Your task to perform on an android device: uninstall "Truecaller" Image 0: 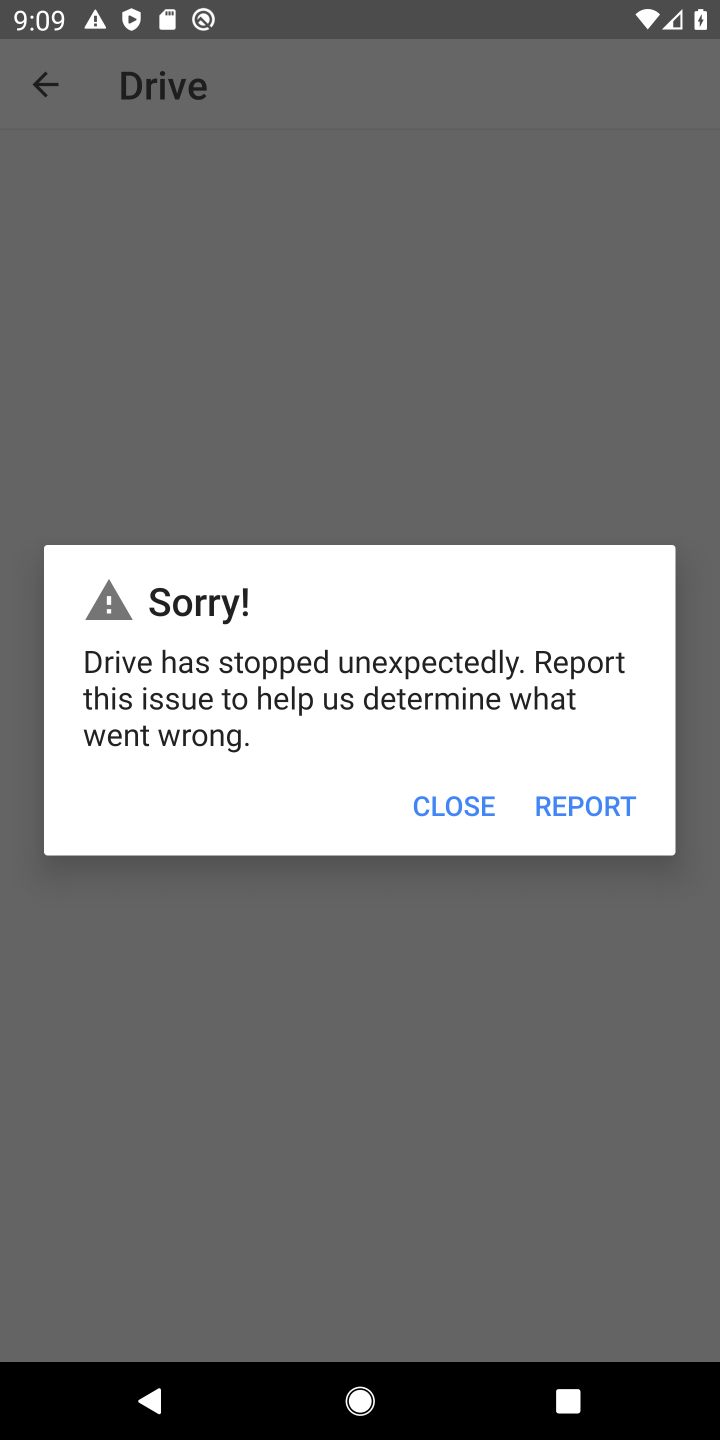
Step 0: press home button
Your task to perform on an android device: uninstall "Truecaller" Image 1: 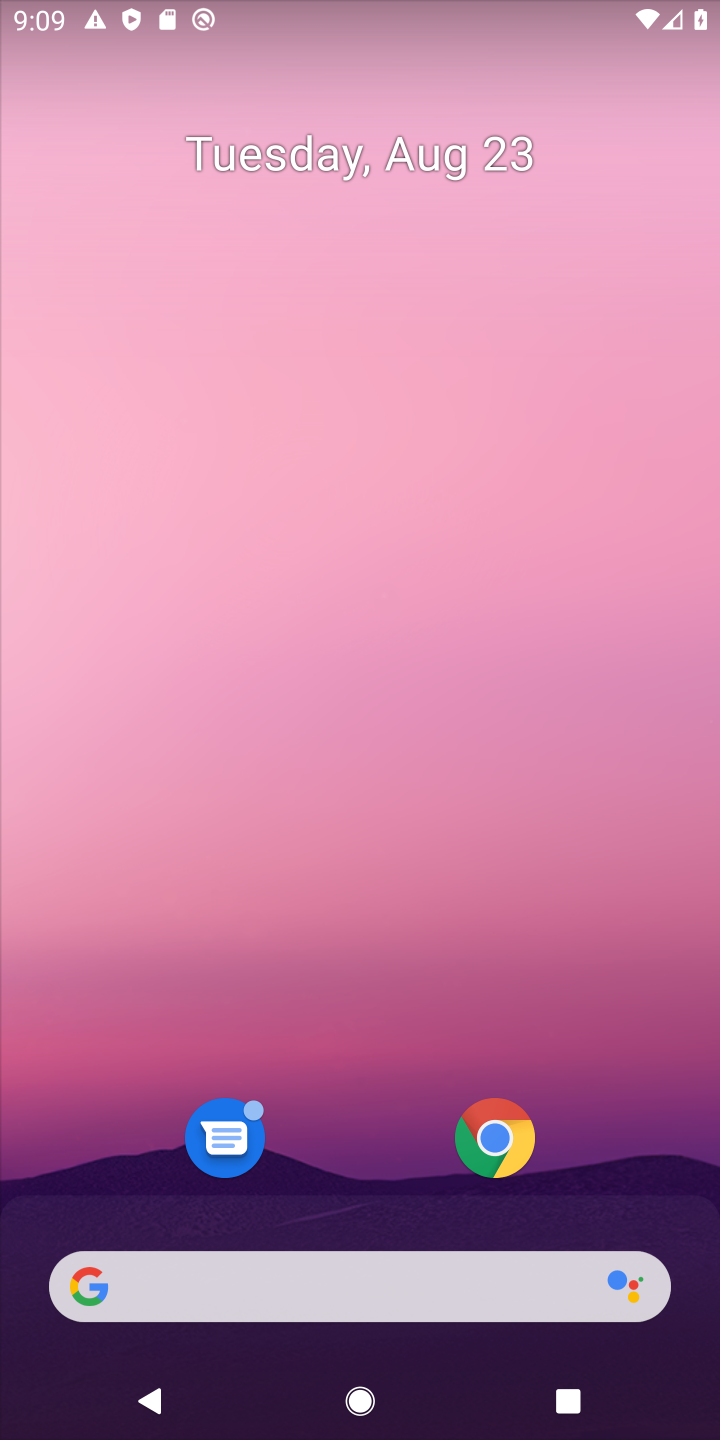
Step 1: drag from (390, 1277) to (636, 72)
Your task to perform on an android device: uninstall "Truecaller" Image 2: 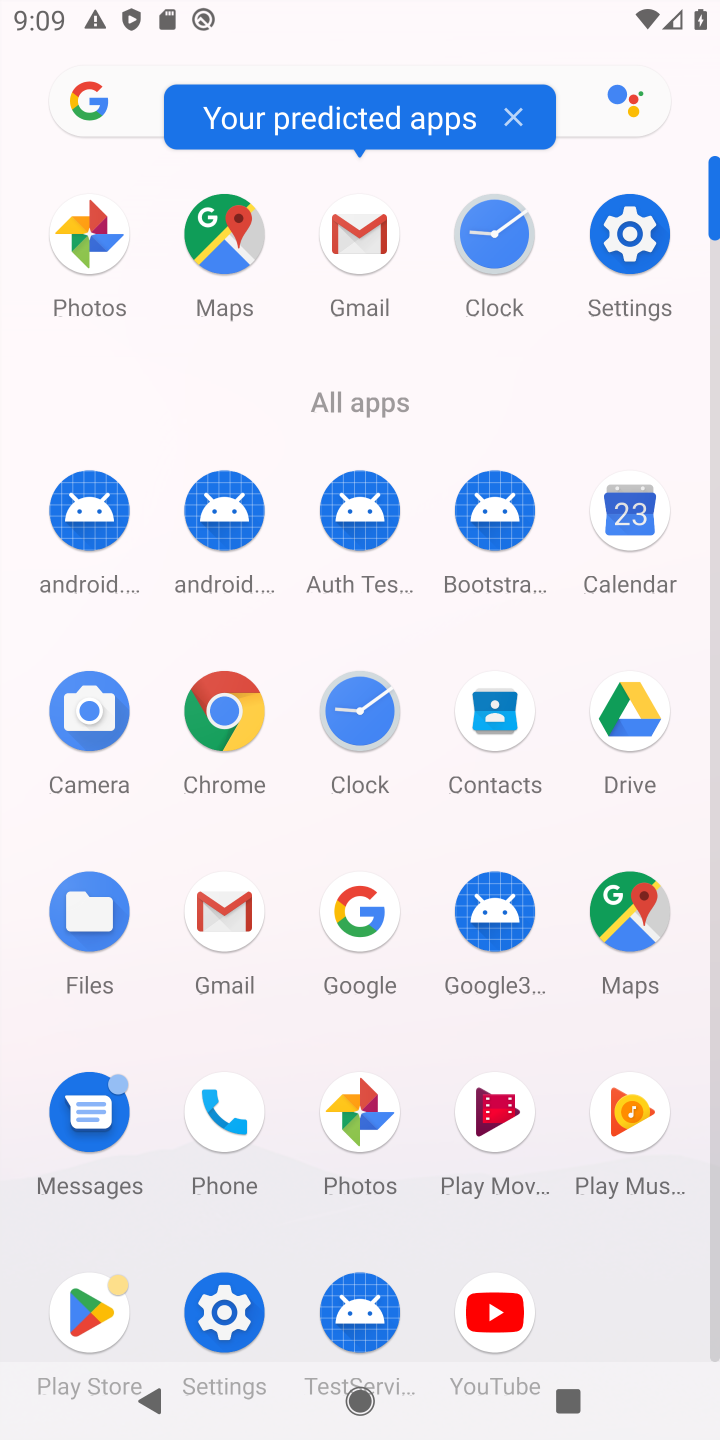
Step 2: click (91, 1321)
Your task to perform on an android device: uninstall "Truecaller" Image 3: 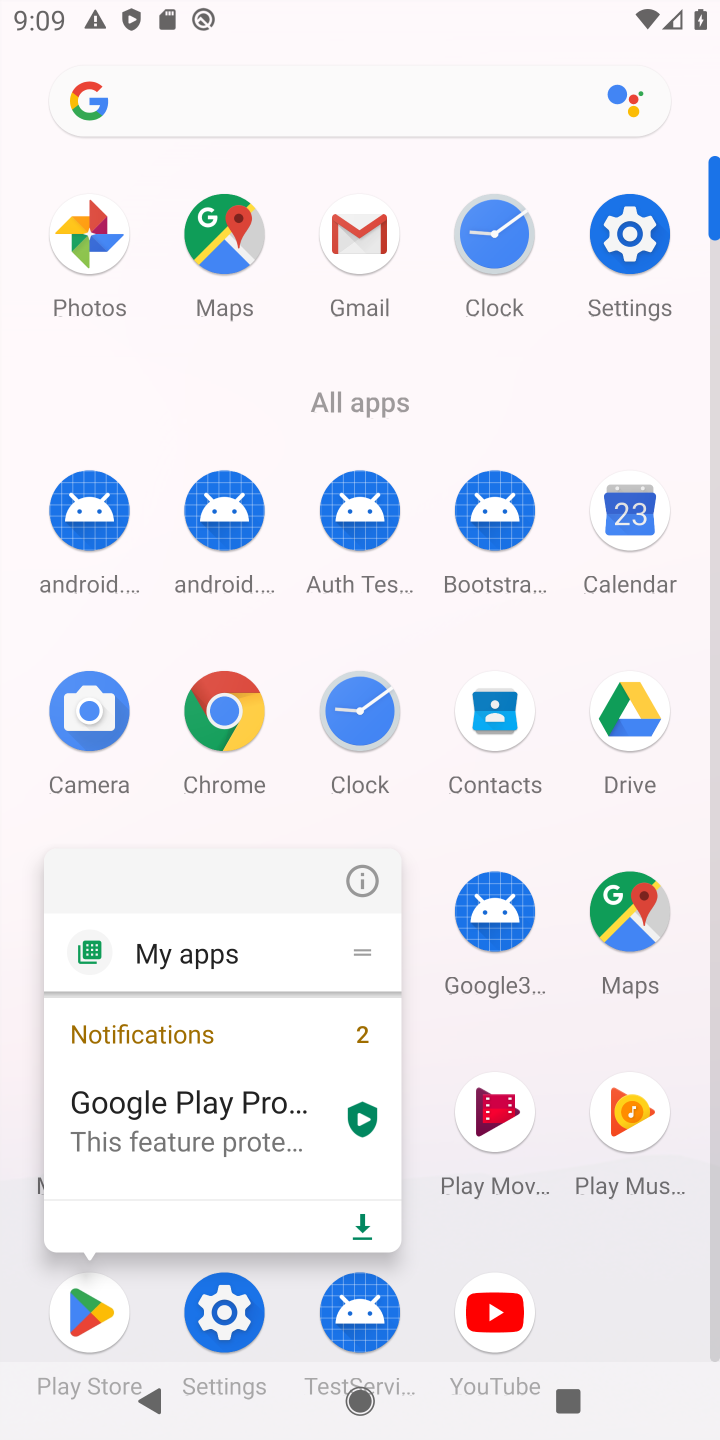
Step 3: click (93, 1312)
Your task to perform on an android device: uninstall "Truecaller" Image 4: 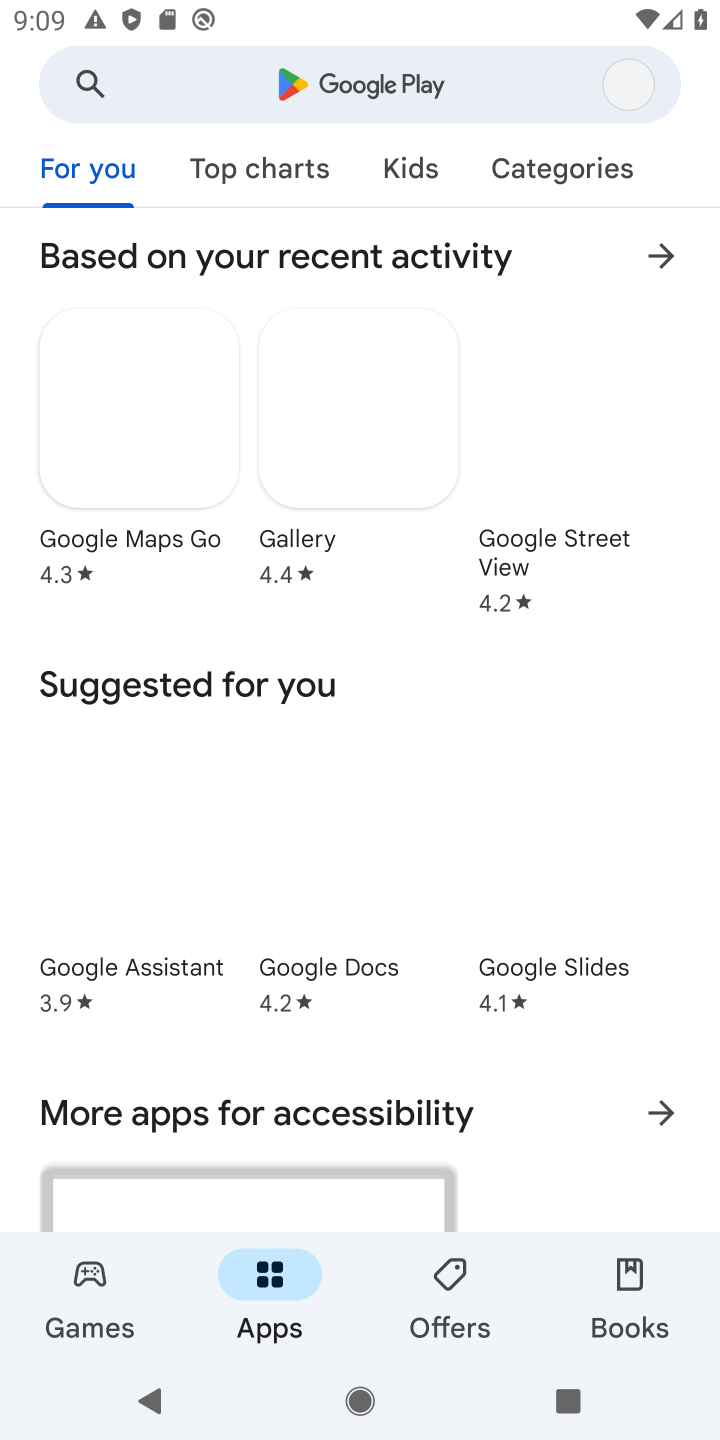
Step 4: click (377, 87)
Your task to perform on an android device: uninstall "Truecaller" Image 5: 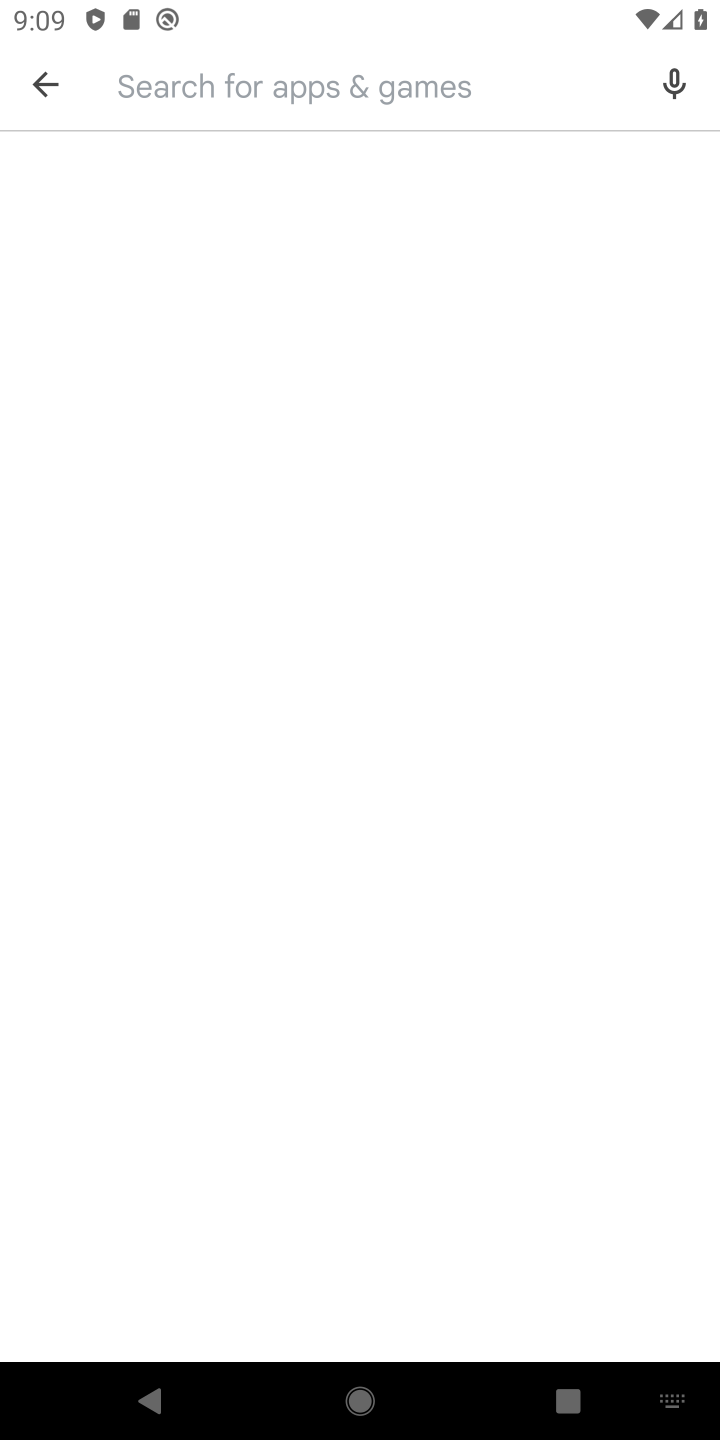
Step 5: type "Truecaller"
Your task to perform on an android device: uninstall "Truecaller" Image 6: 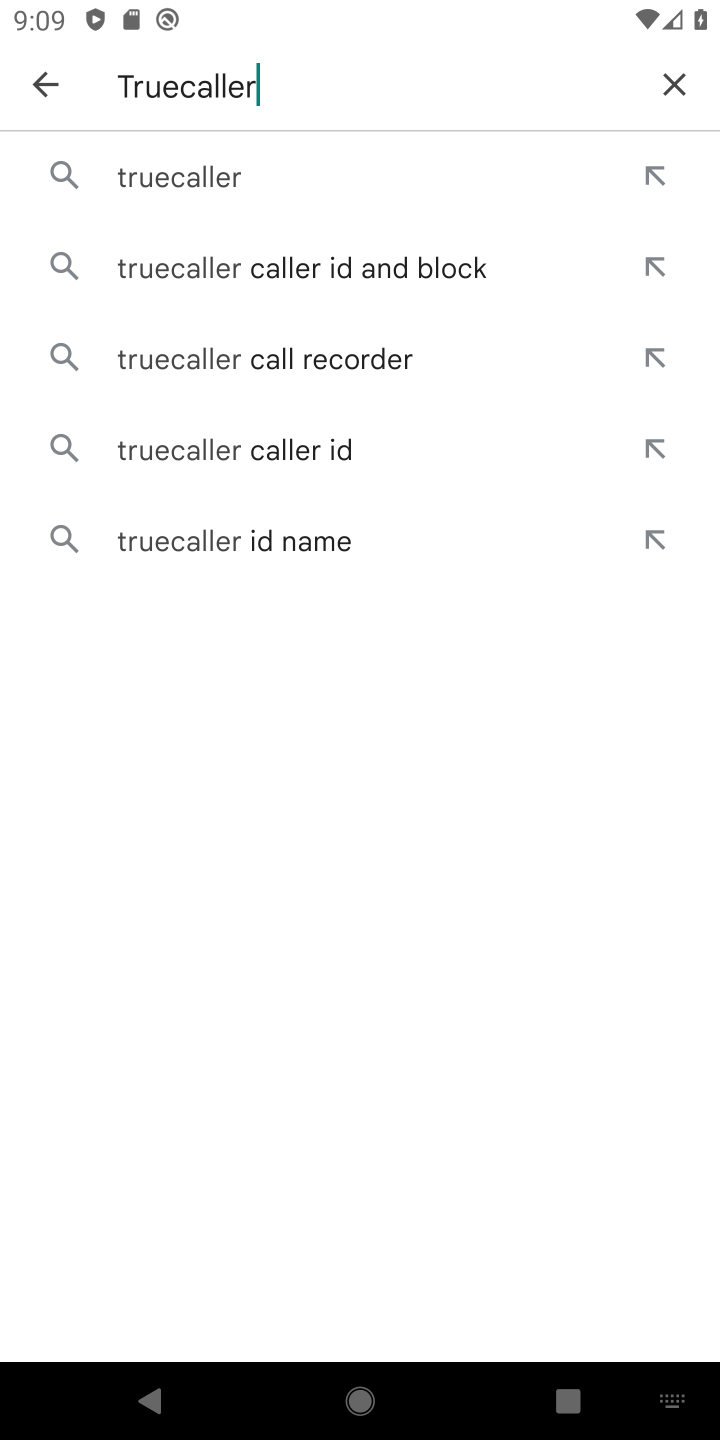
Step 6: click (172, 170)
Your task to perform on an android device: uninstall "Truecaller" Image 7: 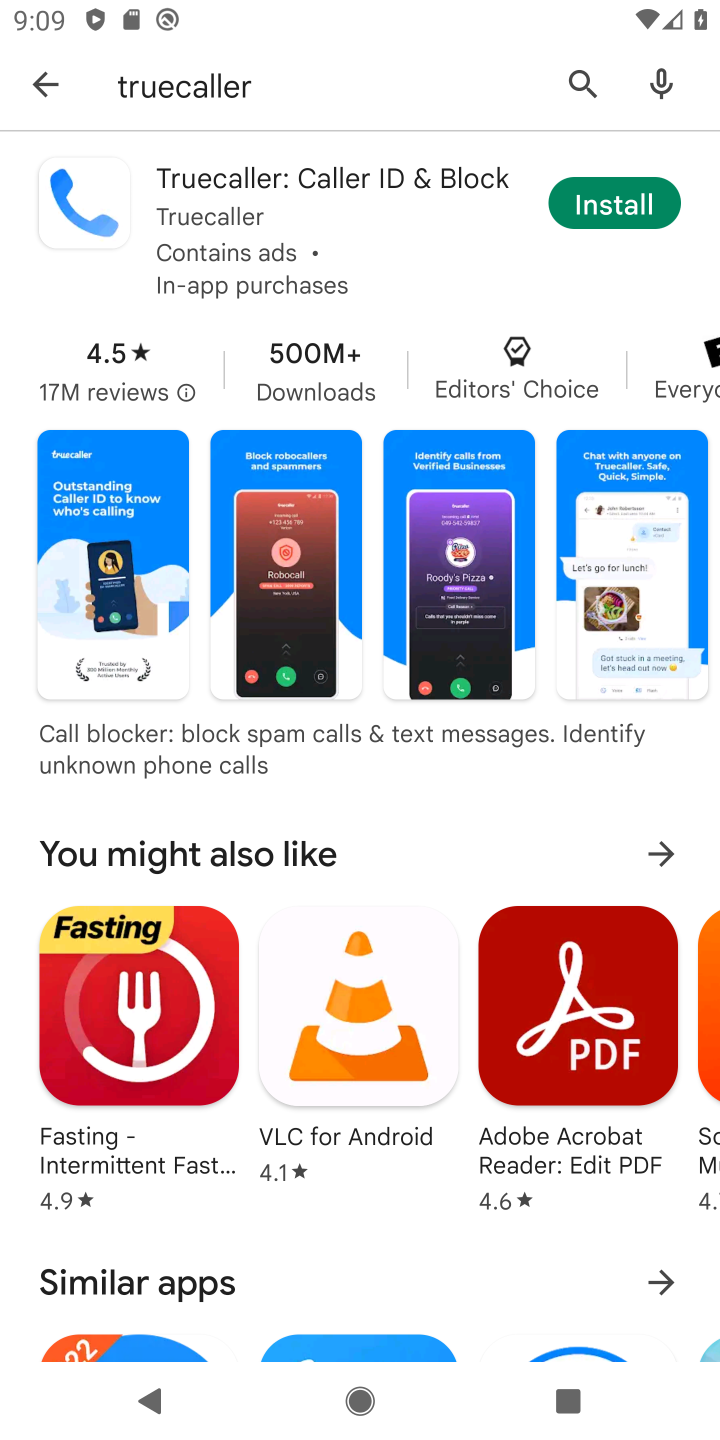
Step 7: task complete